Your task to perform on an android device: toggle show notifications on the lock screen Image 0: 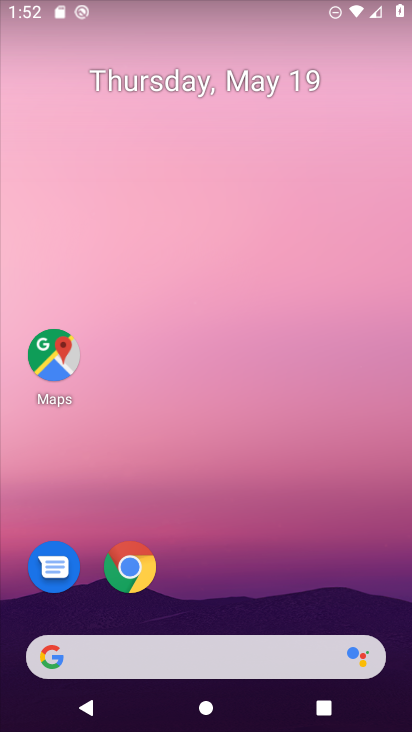
Step 0: drag from (267, 531) to (271, 22)
Your task to perform on an android device: toggle show notifications on the lock screen Image 1: 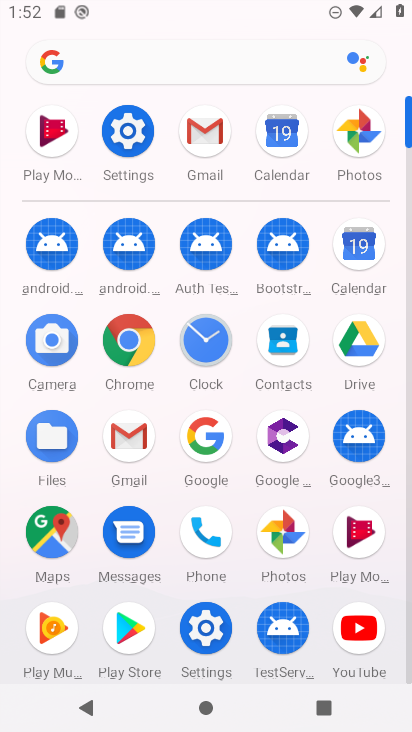
Step 1: click (140, 130)
Your task to perform on an android device: toggle show notifications on the lock screen Image 2: 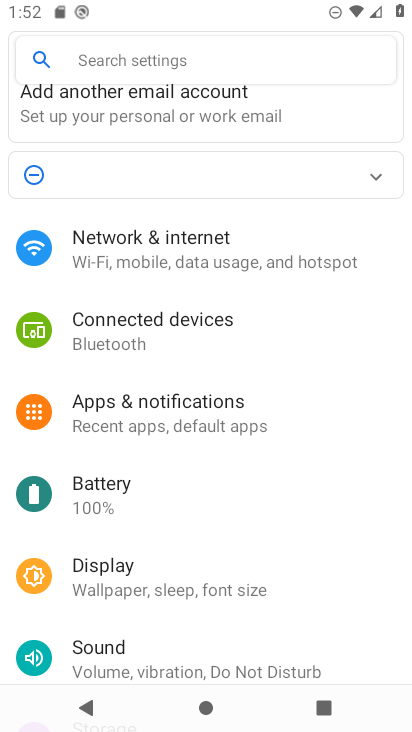
Step 2: click (195, 408)
Your task to perform on an android device: toggle show notifications on the lock screen Image 3: 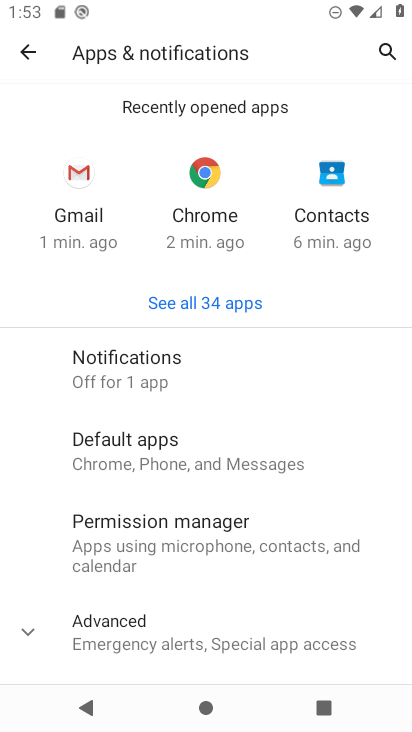
Step 3: click (214, 357)
Your task to perform on an android device: toggle show notifications on the lock screen Image 4: 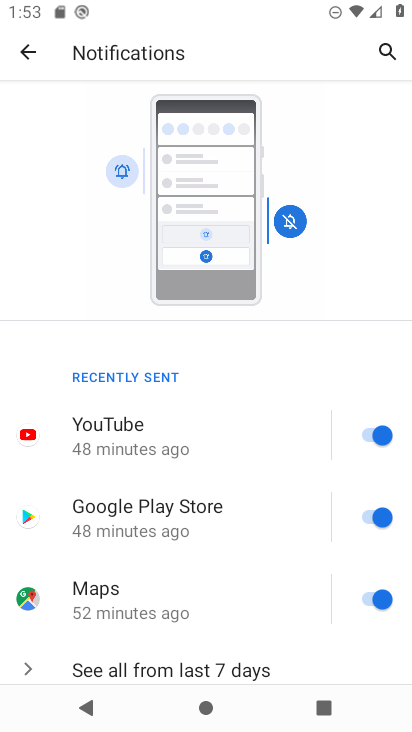
Step 4: drag from (253, 553) to (294, 177)
Your task to perform on an android device: toggle show notifications on the lock screen Image 5: 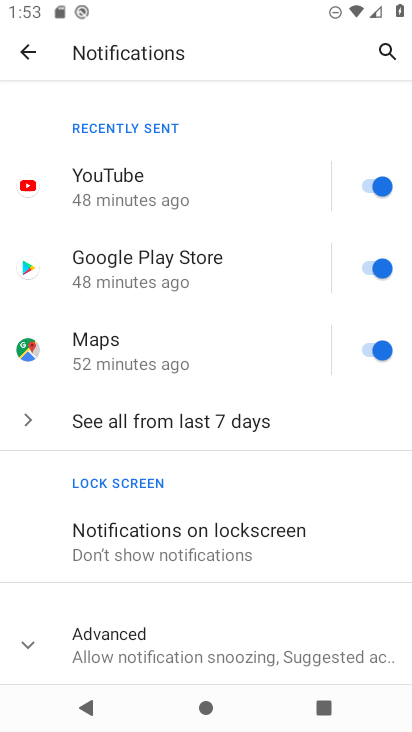
Step 5: click (245, 536)
Your task to perform on an android device: toggle show notifications on the lock screen Image 6: 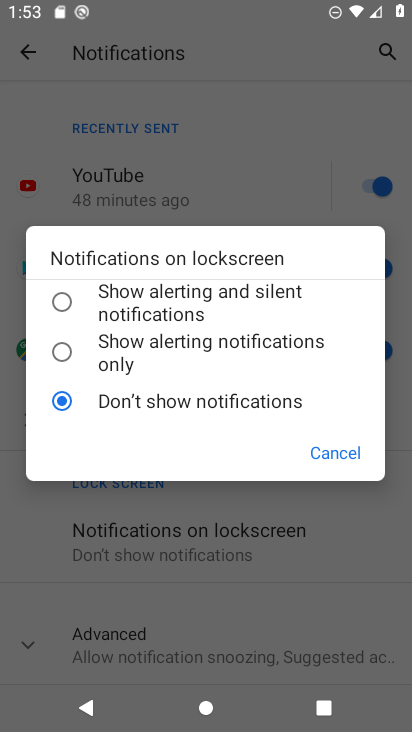
Step 6: click (57, 287)
Your task to perform on an android device: toggle show notifications on the lock screen Image 7: 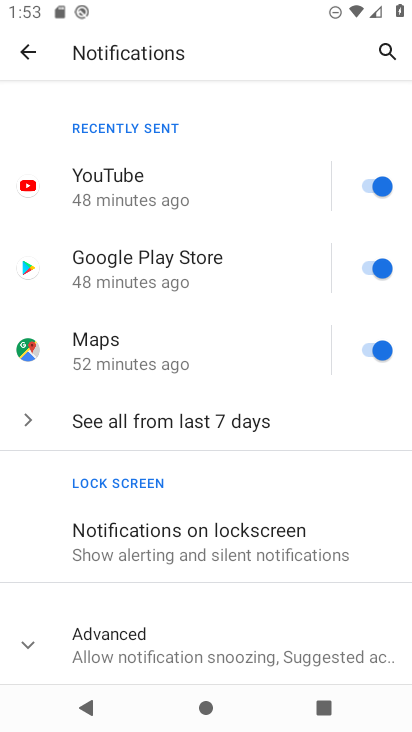
Step 7: task complete